Your task to perform on an android device: Open battery settings Image 0: 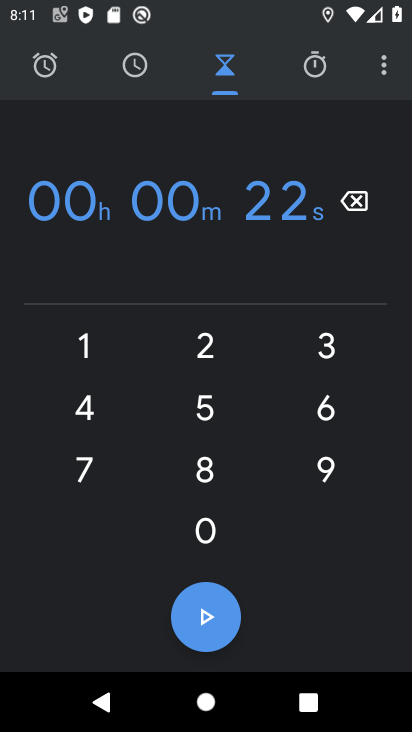
Step 0: press home button
Your task to perform on an android device: Open battery settings Image 1: 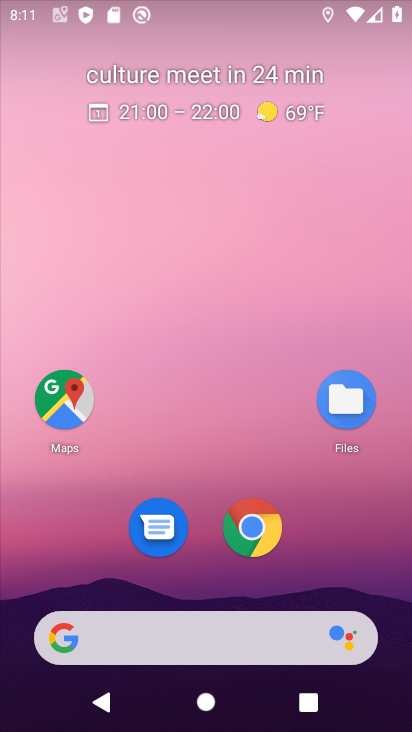
Step 1: drag from (298, 565) to (265, 130)
Your task to perform on an android device: Open battery settings Image 2: 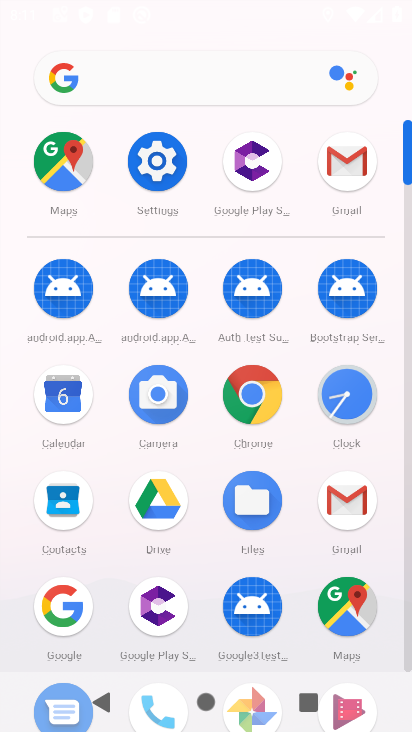
Step 2: click (150, 170)
Your task to perform on an android device: Open battery settings Image 3: 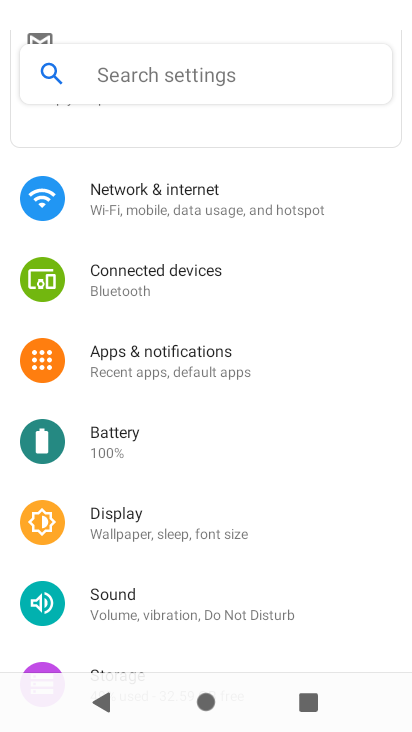
Step 3: drag from (196, 607) to (180, 161)
Your task to perform on an android device: Open battery settings Image 4: 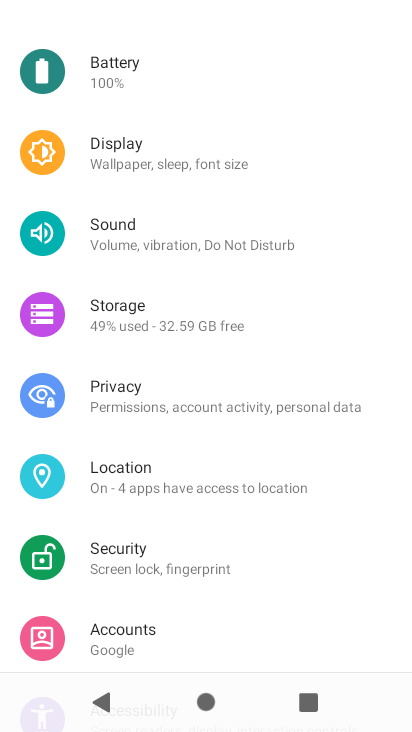
Step 4: drag from (190, 608) to (181, 520)
Your task to perform on an android device: Open battery settings Image 5: 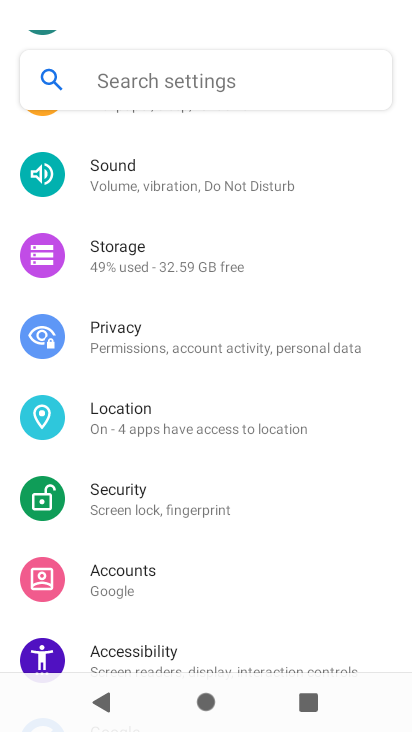
Step 5: drag from (154, 294) to (175, 421)
Your task to perform on an android device: Open battery settings Image 6: 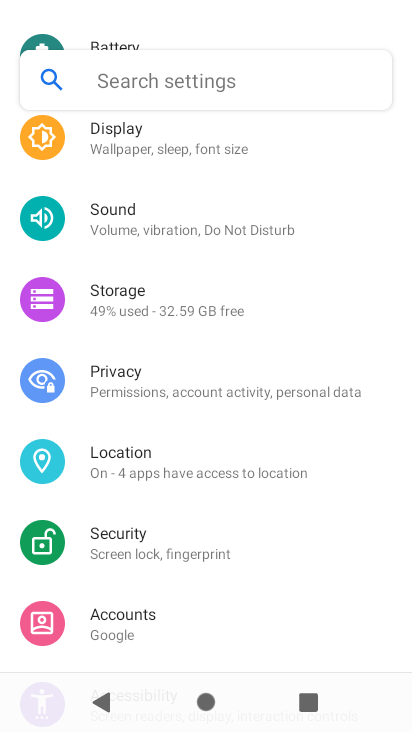
Step 6: drag from (124, 151) to (174, 459)
Your task to perform on an android device: Open battery settings Image 7: 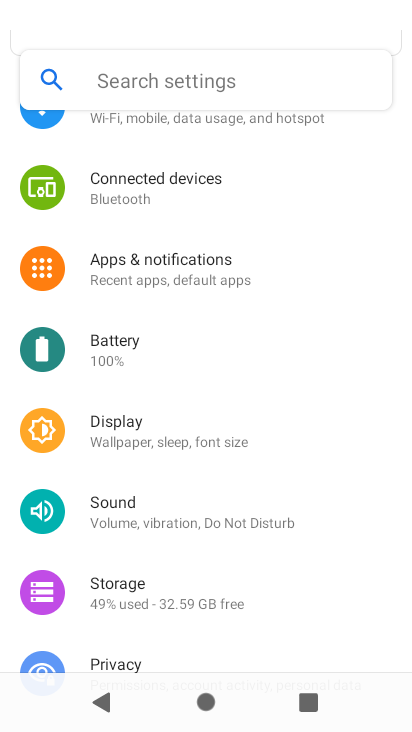
Step 7: click (128, 338)
Your task to perform on an android device: Open battery settings Image 8: 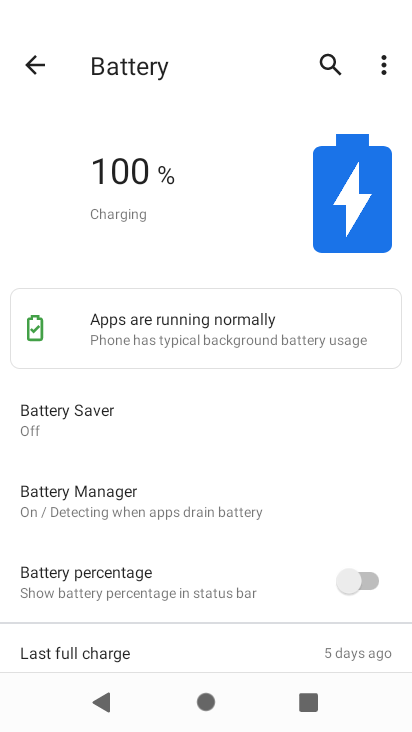
Step 8: task complete